Your task to perform on an android device: find snoozed emails in the gmail app Image 0: 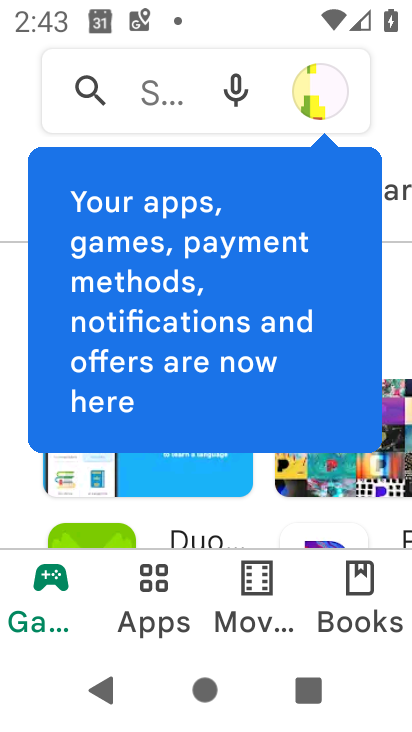
Step 0: press home button
Your task to perform on an android device: find snoozed emails in the gmail app Image 1: 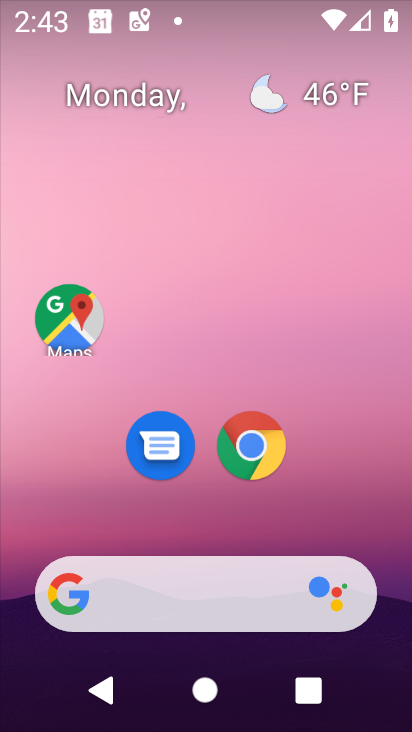
Step 1: drag from (349, 527) to (335, 159)
Your task to perform on an android device: find snoozed emails in the gmail app Image 2: 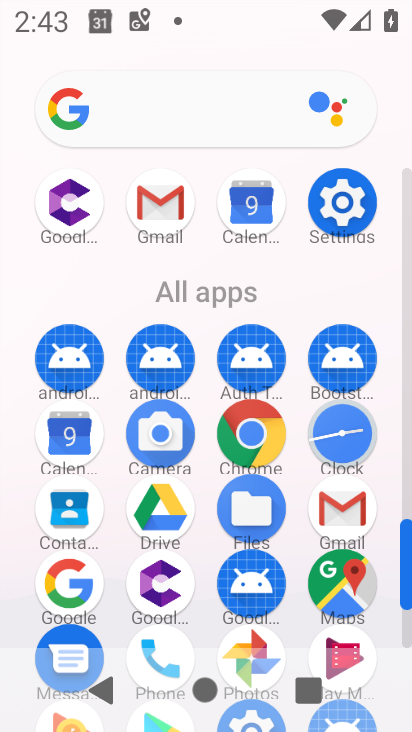
Step 2: click (345, 513)
Your task to perform on an android device: find snoozed emails in the gmail app Image 3: 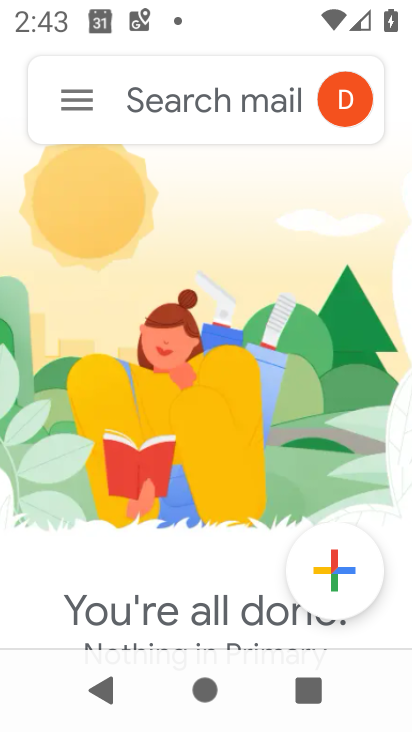
Step 3: click (85, 107)
Your task to perform on an android device: find snoozed emails in the gmail app Image 4: 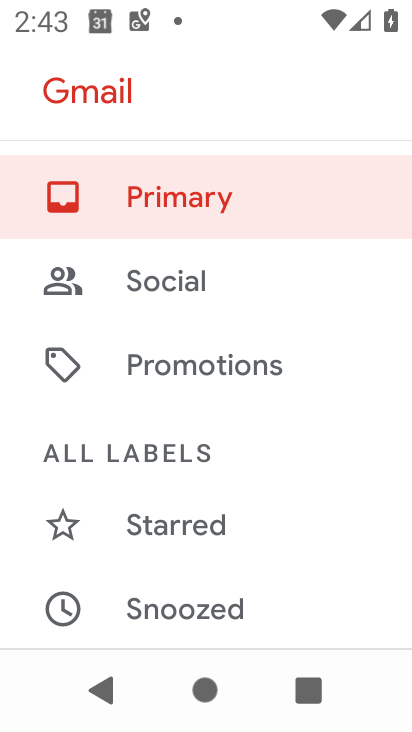
Step 4: drag from (249, 518) to (250, 351)
Your task to perform on an android device: find snoozed emails in the gmail app Image 5: 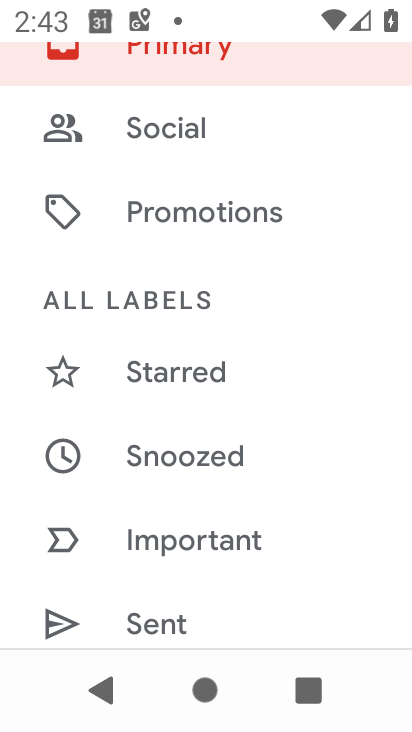
Step 5: click (227, 463)
Your task to perform on an android device: find snoozed emails in the gmail app Image 6: 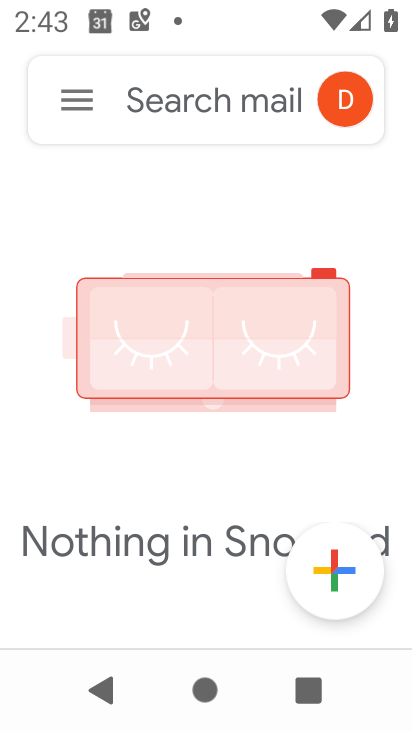
Step 6: task complete